Your task to perform on an android device: turn on the 24-hour format for clock Image 0: 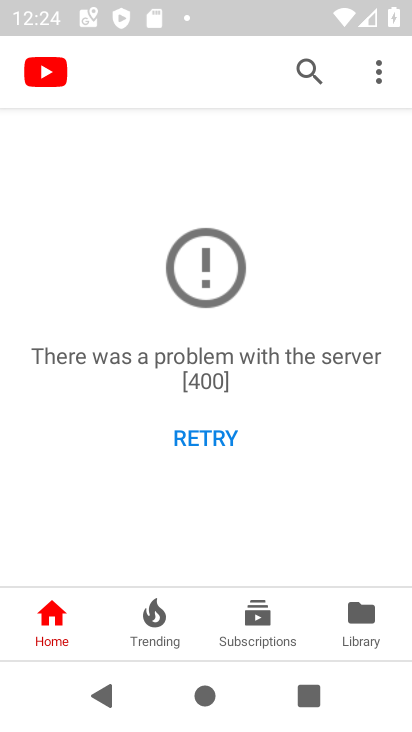
Step 0: press home button
Your task to perform on an android device: turn on the 24-hour format for clock Image 1: 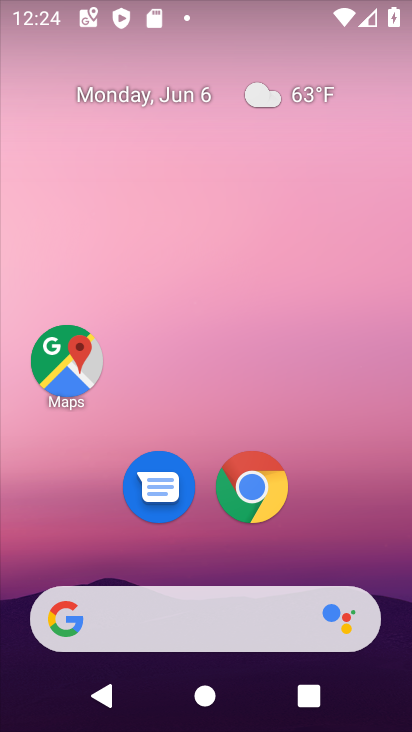
Step 1: drag from (396, 626) to (346, 88)
Your task to perform on an android device: turn on the 24-hour format for clock Image 2: 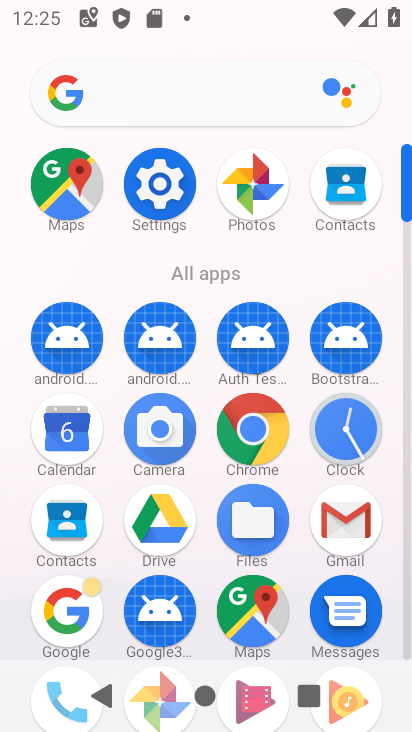
Step 2: click (345, 428)
Your task to perform on an android device: turn on the 24-hour format for clock Image 3: 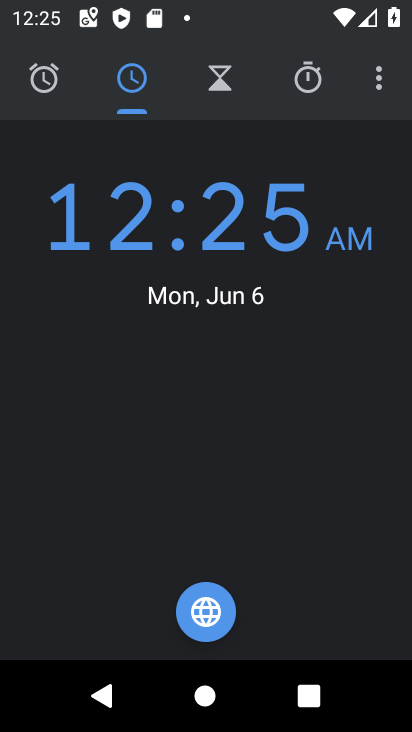
Step 3: click (382, 91)
Your task to perform on an android device: turn on the 24-hour format for clock Image 4: 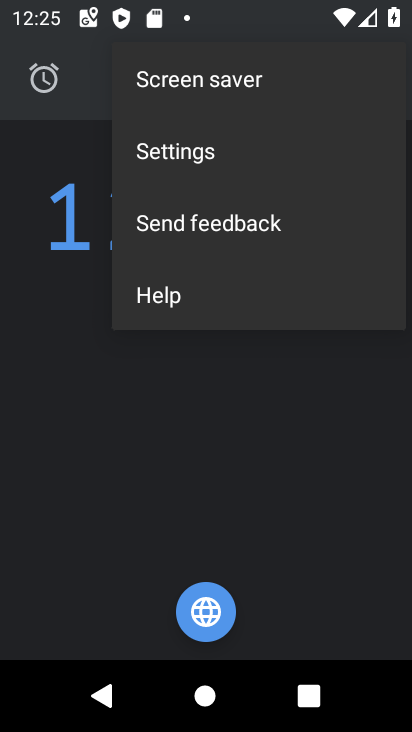
Step 4: click (196, 142)
Your task to perform on an android device: turn on the 24-hour format for clock Image 5: 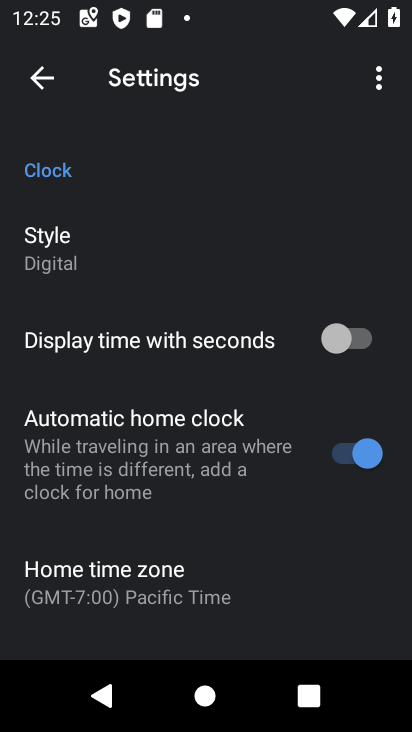
Step 5: drag from (286, 546) to (253, 129)
Your task to perform on an android device: turn on the 24-hour format for clock Image 6: 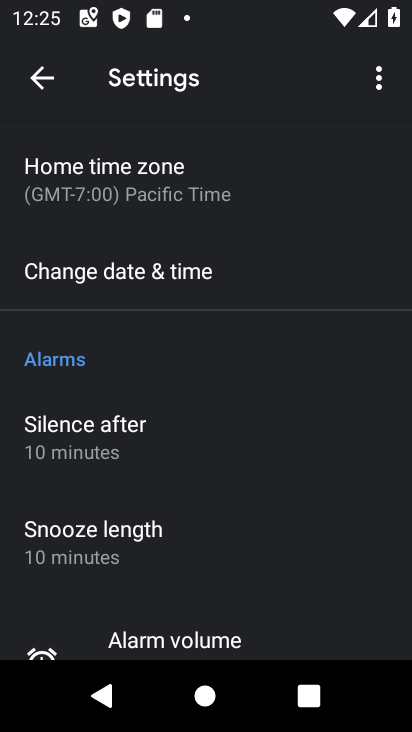
Step 6: click (103, 283)
Your task to perform on an android device: turn on the 24-hour format for clock Image 7: 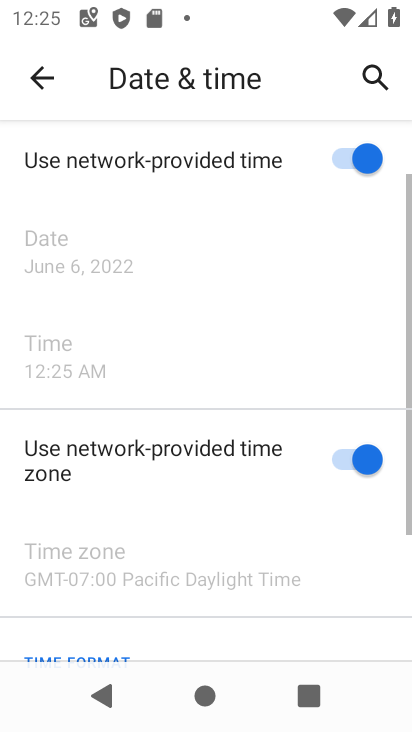
Step 7: drag from (308, 575) to (264, 118)
Your task to perform on an android device: turn on the 24-hour format for clock Image 8: 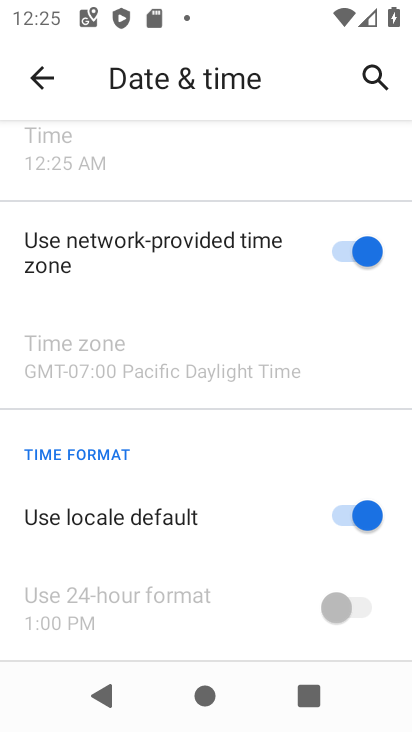
Step 8: click (343, 515)
Your task to perform on an android device: turn on the 24-hour format for clock Image 9: 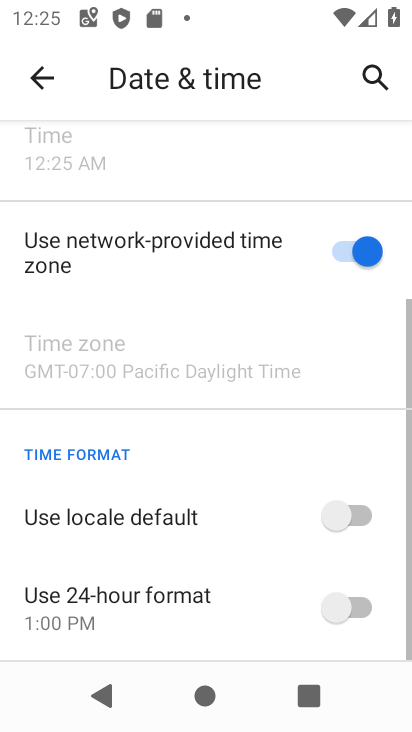
Step 9: click (362, 613)
Your task to perform on an android device: turn on the 24-hour format for clock Image 10: 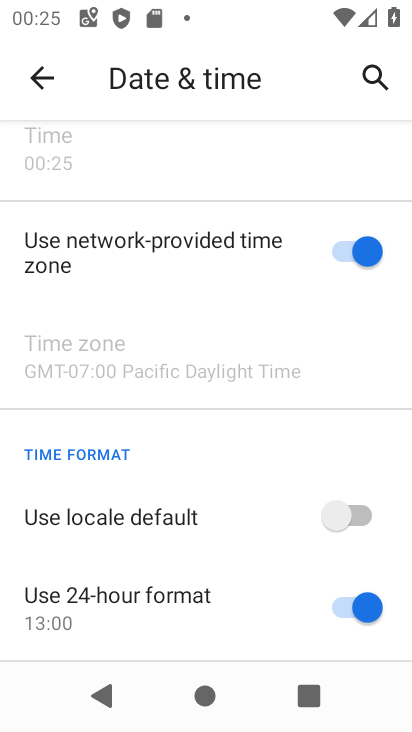
Step 10: task complete